Your task to perform on an android device: turn pop-ups off in chrome Image 0: 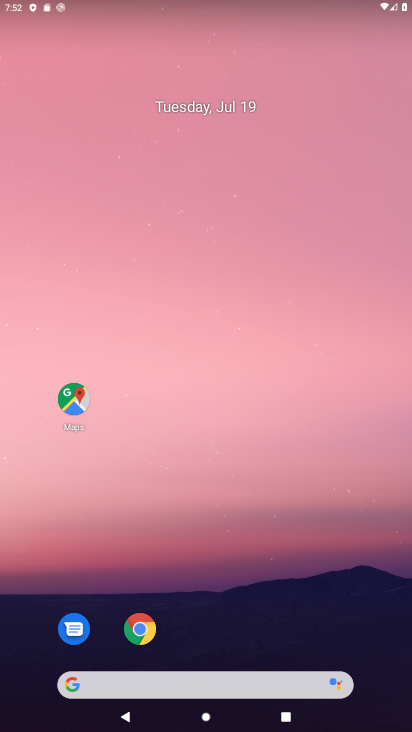
Step 0: drag from (178, 606) to (294, 80)
Your task to perform on an android device: turn pop-ups off in chrome Image 1: 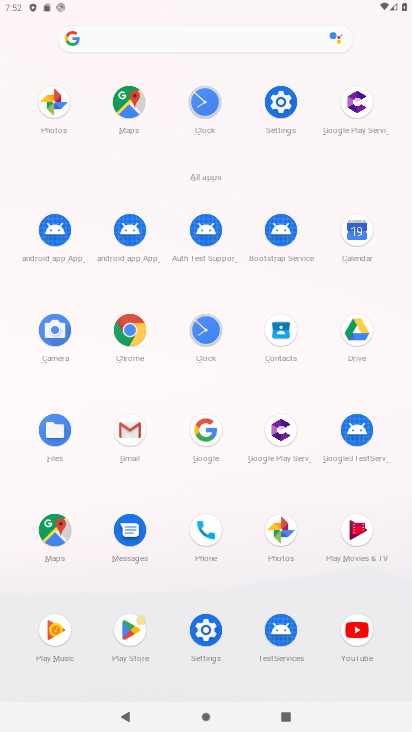
Step 1: click (134, 331)
Your task to perform on an android device: turn pop-ups off in chrome Image 2: 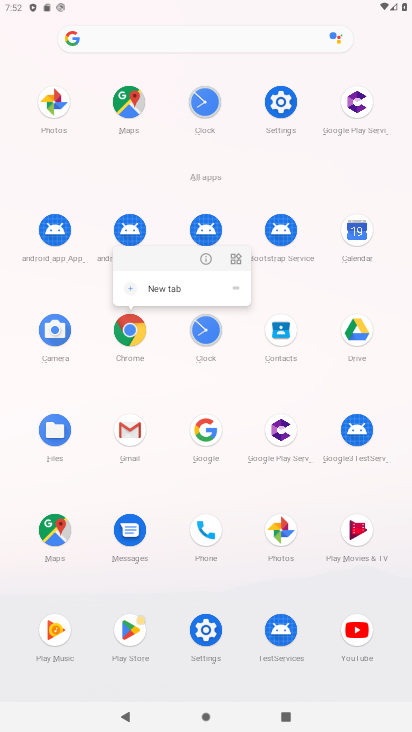
Step 2: click (203, 262)
Your task to perform on an android device: turn pop-ups off in chrome Image 3: 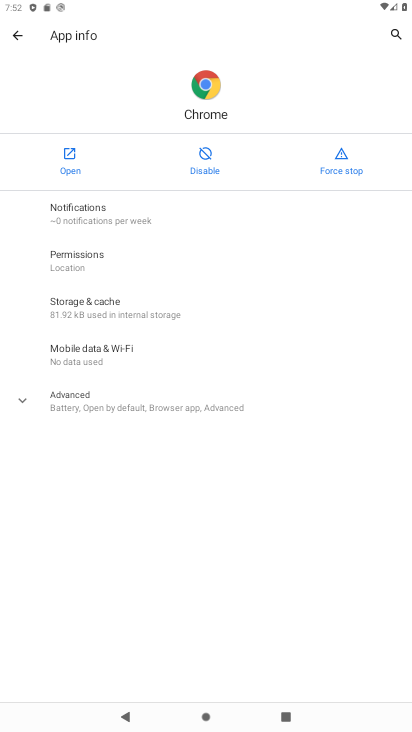
Step 3: click (71, 146)
Your task to perform on an android device: turn pop-ups off in chrome Image 4: 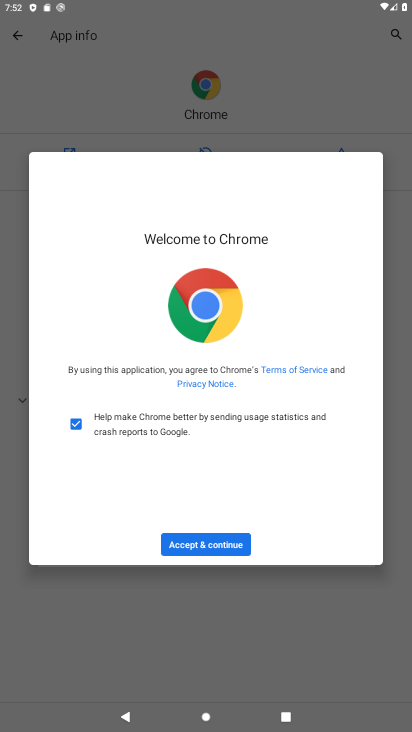
Step 4: click (223, 548)
Your task to perform on an android device: turn pop-ups off in chrome Image 5: 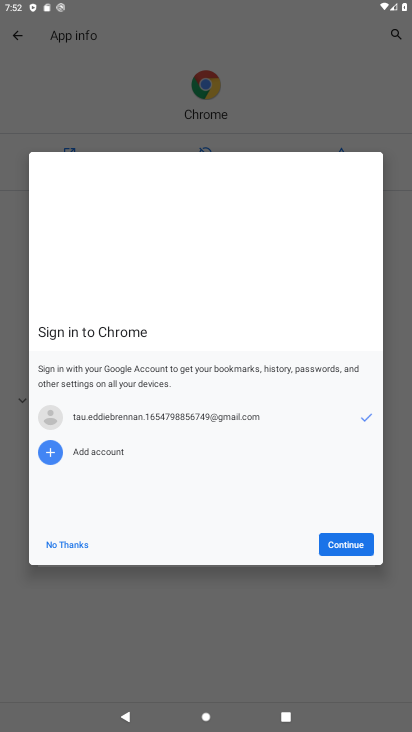
Step 5: click (353, 548)
Your task to perform on an android device: turn pop-ups off in chrome Image 6: 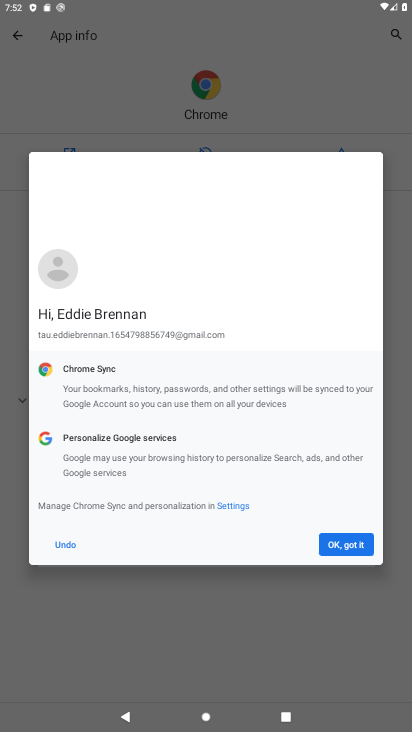
Step 6: click (343, 537)
Your task to perform on an android device: turn pop-ups off in chrome Image 7: 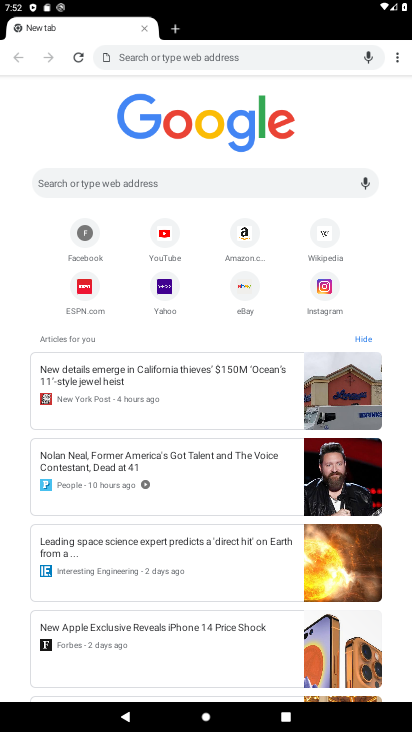
Step 7: drag from (398, 51) to (322, 260)
Your task to perform on an android device: turn pop-ups off in chrome Image 8: 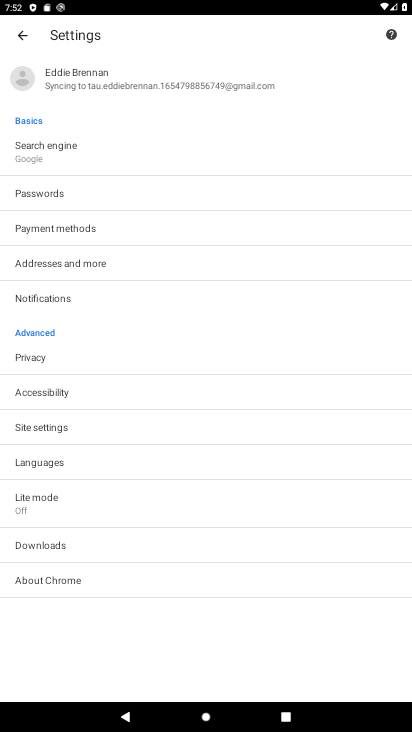
Step 8: click (94, 417)
Your task to perform on an android device: turn pop-ups off in chrome Image 9: 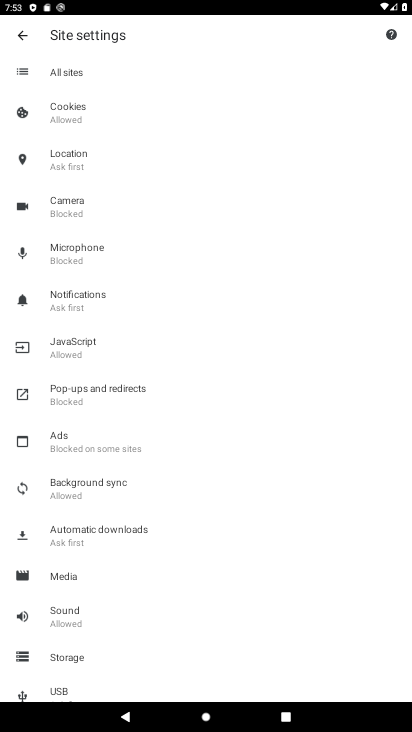
Step 9: drag from (131, 610) to (242, 228)
Your task to perform on an android device: turn pop-ups off in chrome Image 10: 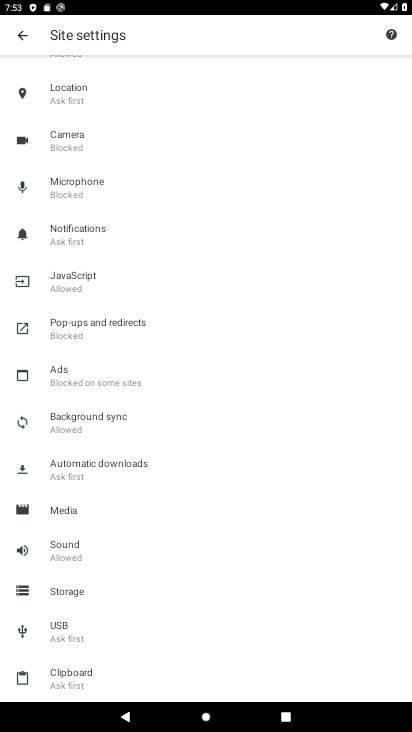
Step 10: click (108, 324)
Your task to perform on an android device: turn pop-ups off in chrome Image 11: 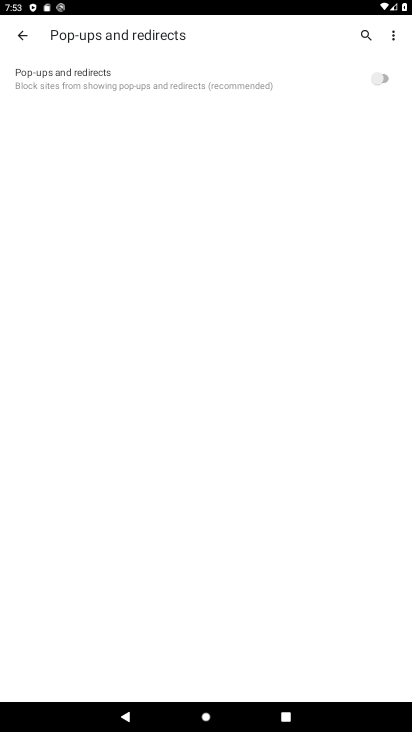
Step 11: task complete